Your task to perform on an android device: Go to Reddit.com Image 0: 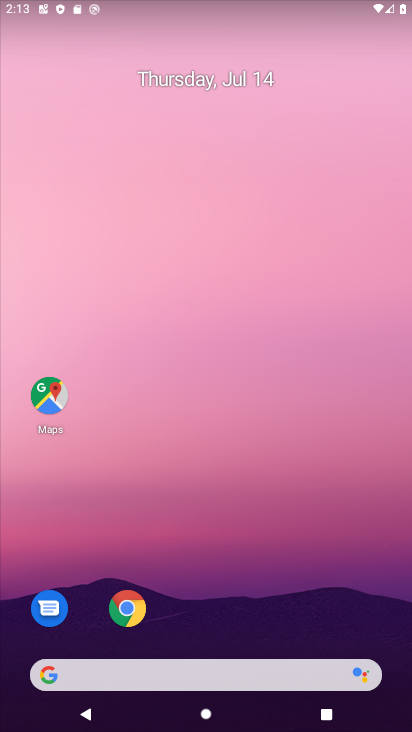
Step 0: click (114, 599)
Your task to perform on an android device: Go to Reddit.com Image 1: 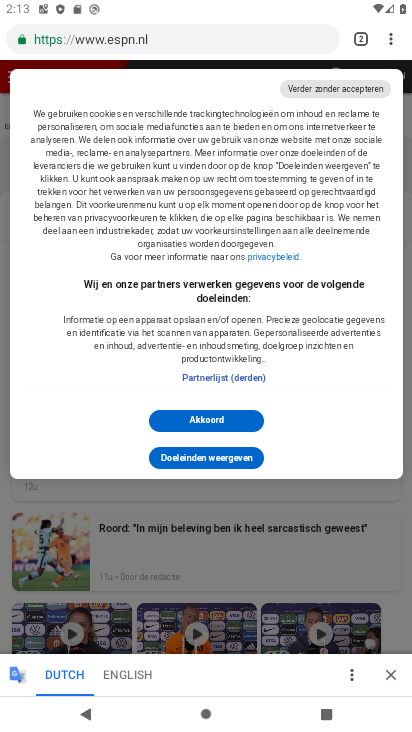
Step 1: click (353, 25)
Your task to perform on an android device: Go to Reddit.com Image 2: 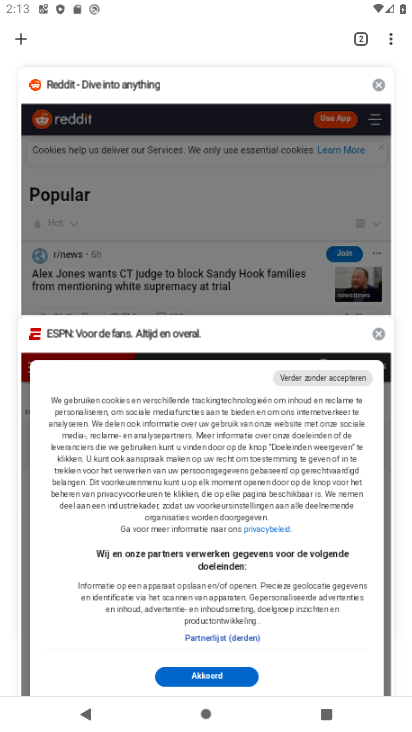
Step 2: click (76, 78)
Your task to perform on an android device: Go to Reddit.com Image 3: 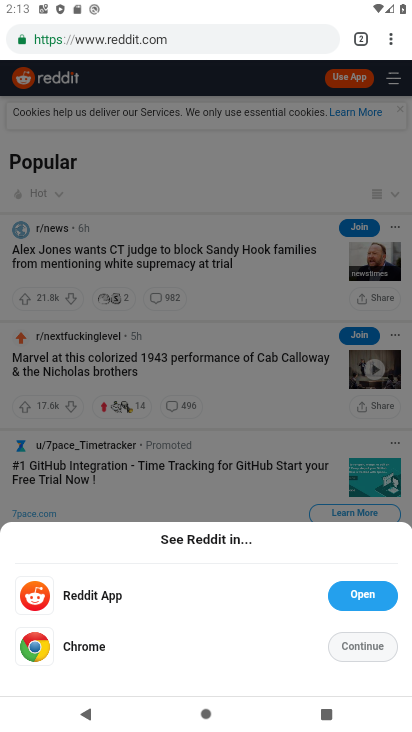
Step 3: task complete